Your task to perform on an android device: toggle airplane mode Image 0: 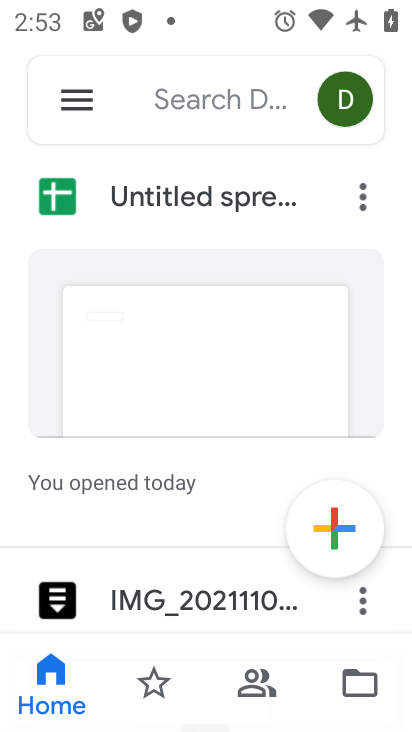
Step 0: press home button
Your task to perform on an android device: toggle airplane mode Image 1: 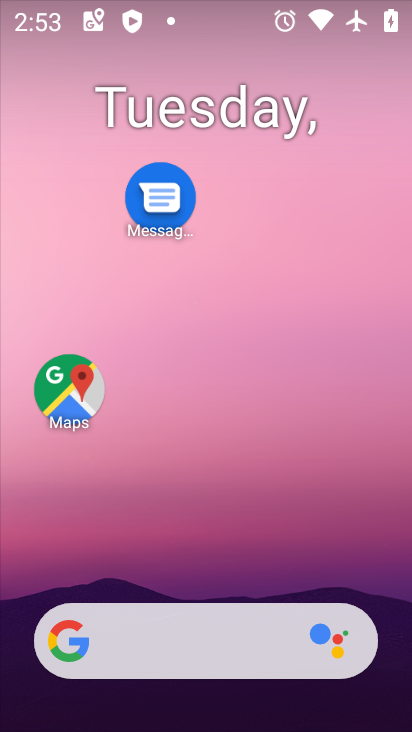
Step 1: drag from (185, 573) to (186, 282)
Your task to perform on an android device: toggle airplane mode Image 2: 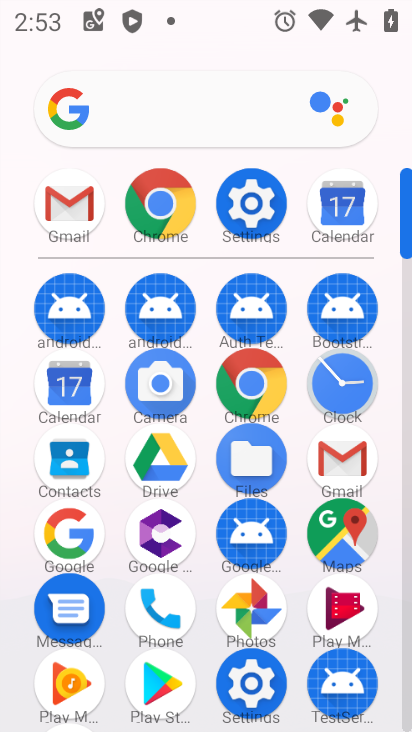
Step 2: click (270, 207)
Your task to perform on an android device: toggle airplane mode Image 3: 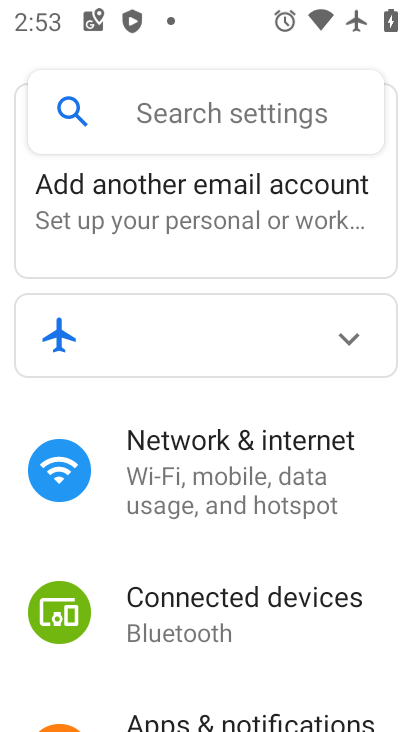
Step 3: click (246, 462)
Your task to perform on an android device: toggle airplane mode Image 4: 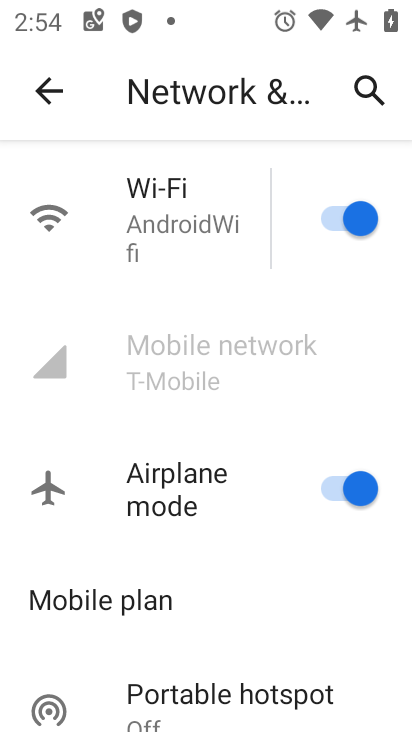
Step 4: click (329, 479)
Your task to perform on an android device: toggle airplane mode Image 5: 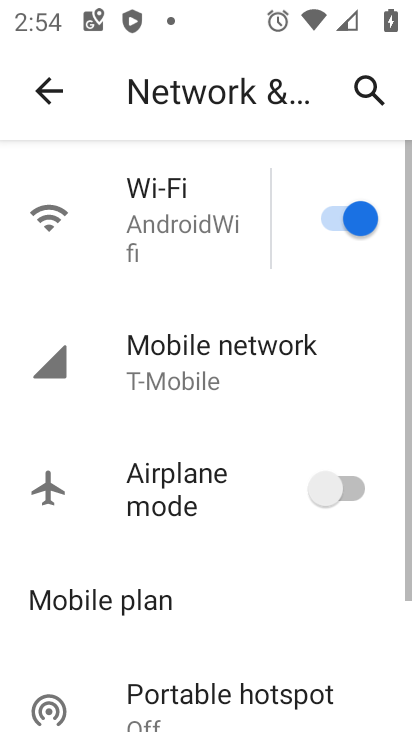
Step 5: task complete